Your task to perform on an android device: turn on the 24-hour format for clock Image 0: 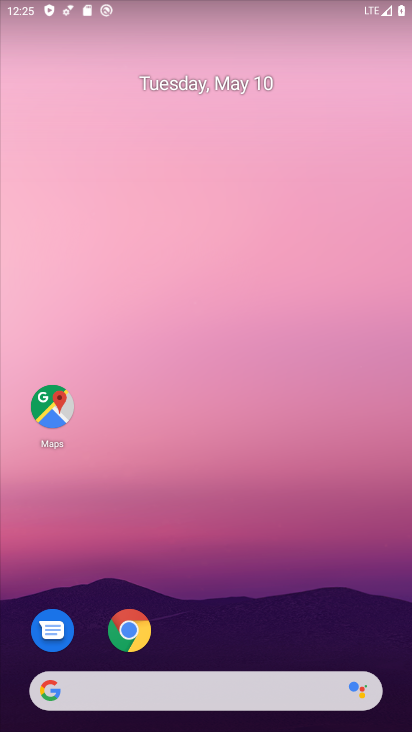
Step 0: drag from (211, 701) to (208, 179)
Your task to perform on an android device: turn on the 24-hour format for clock Image 1: 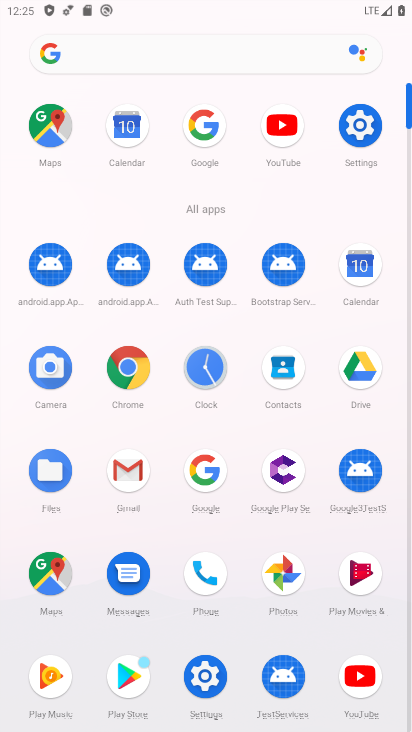
Step 1: click (203, 372)
Your task to perform on an android device: turn on the 24-hour format for clock Image 2: 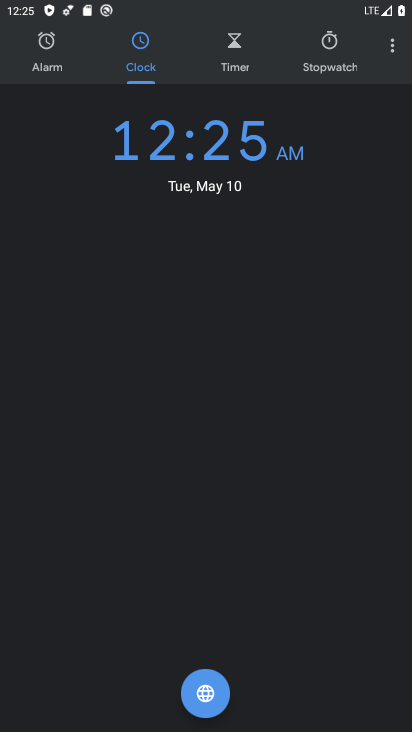
Step 2: click (393, 46)
Your task to perform on an android device: turn on the 24-hour format for clock Image 3: 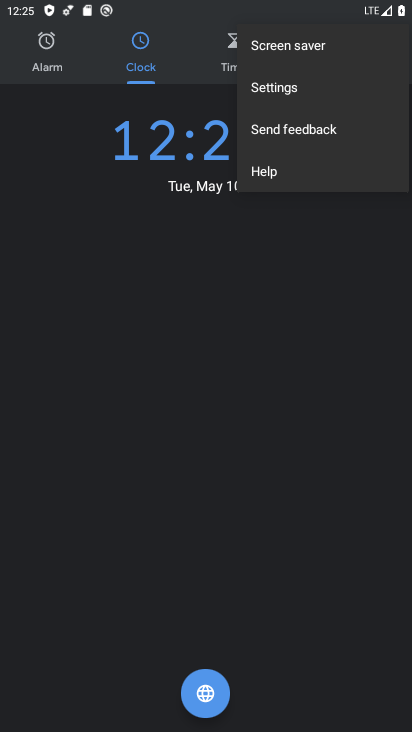
Step 3: click (285, 86)
Your task to perform on an android device: turn on the 24-hour format for clock Image 4: 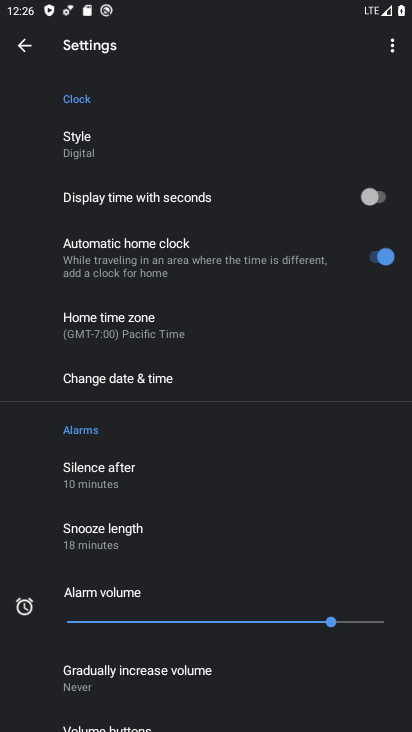
Step 4: click (131, 385)
Your task to perform on an android device: turn on the 24-hour format for clock Image 5: 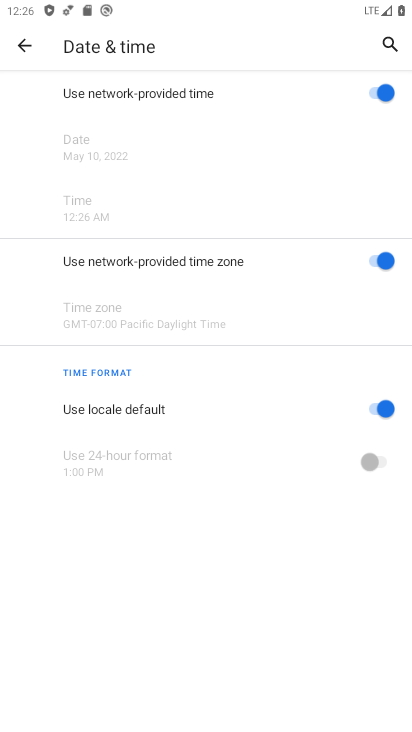
Step 5: click (381, 402)
Your task to perform on an android device: turn on the 24-hour format for clock Image 6: 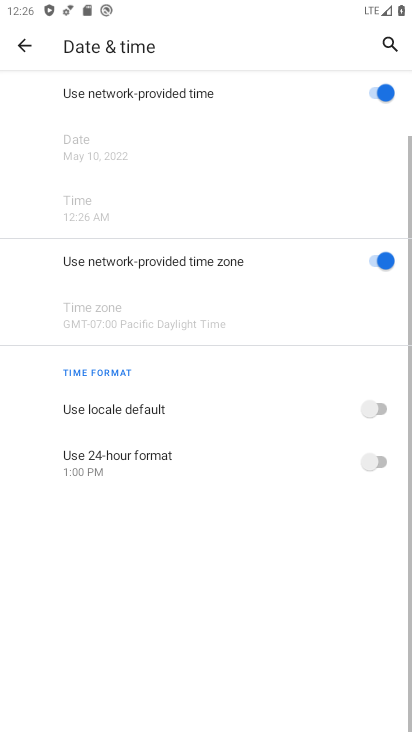
Step 6: click (380, 460)
Your task to perform on an android device: turn on the 24-hour format for clock Image 7: 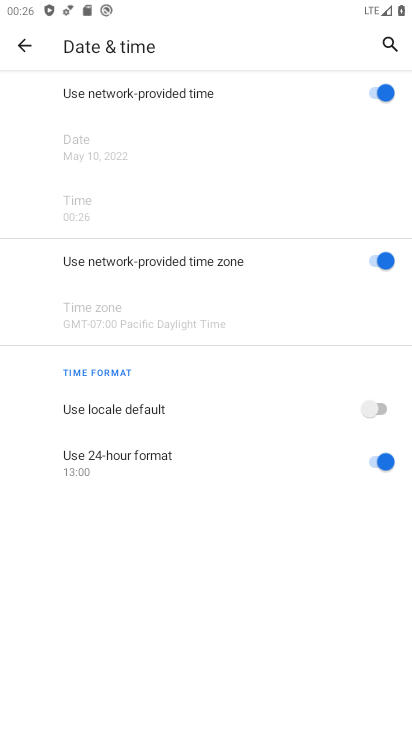
Step 7: task complete